Your task to perform on an android device: Go to Google maps Image 0: 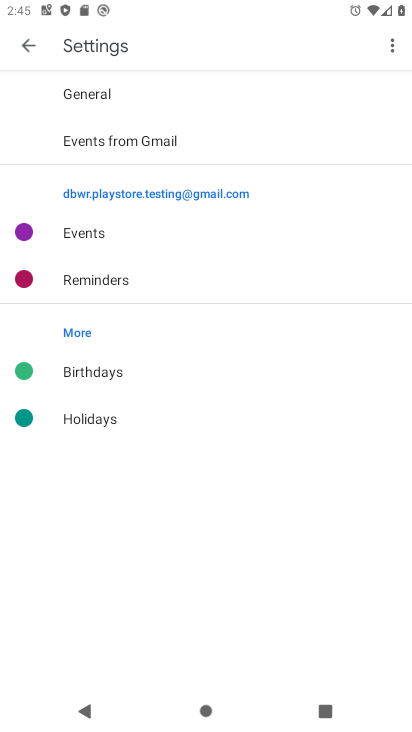
Step 0: press back button
Your task to perform on an android device: Go to Google maps Image 1: 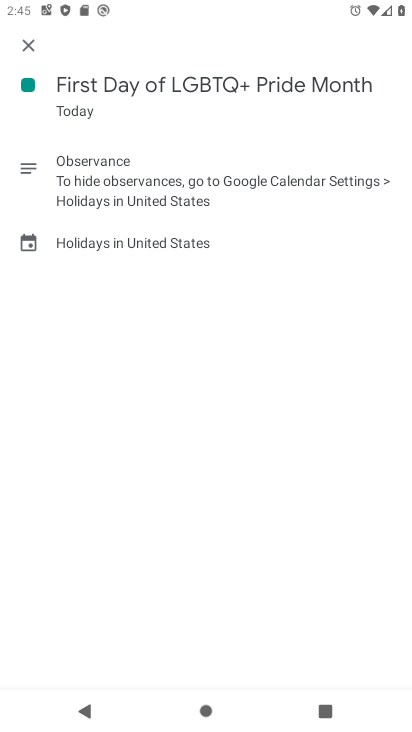
Step 1: press back button
Your task to perform on an android device: Go to Google maps Image 2: 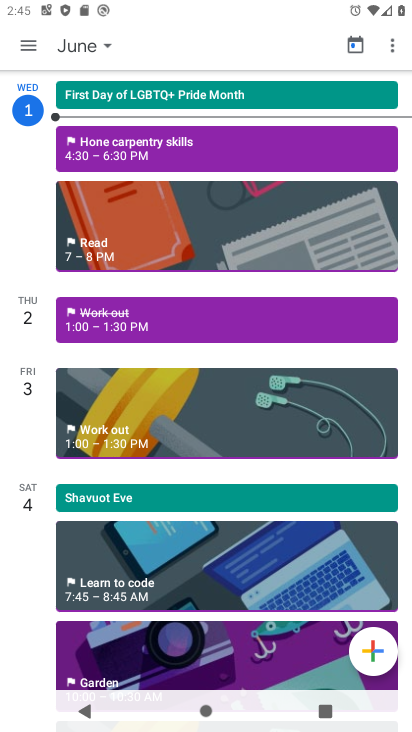
Step 2: press back button
Your task to perform on an android device: Go to Google maps Image 3: 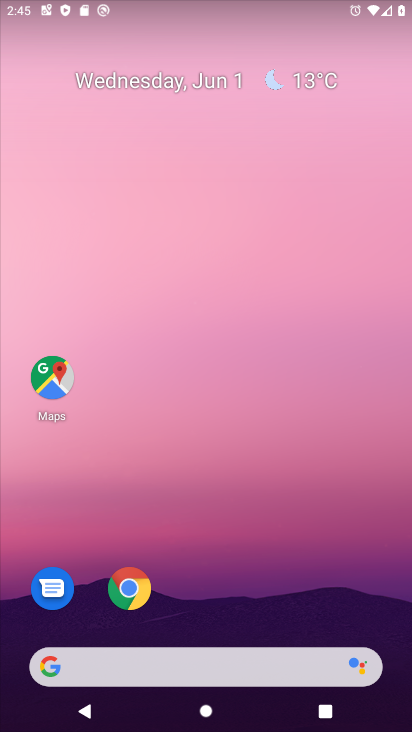
Step 3: click (54, 382)
Your task to perform on an android device: Go to Google maps Image 4: 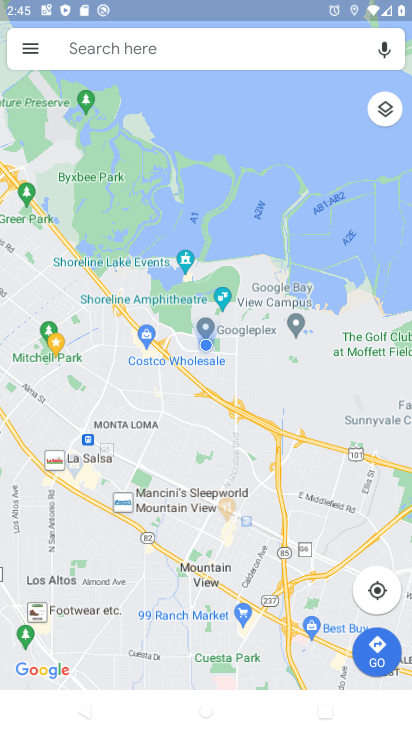
Step 4: task complete